Your task to perform on an android device: turn off wifi Image 0: 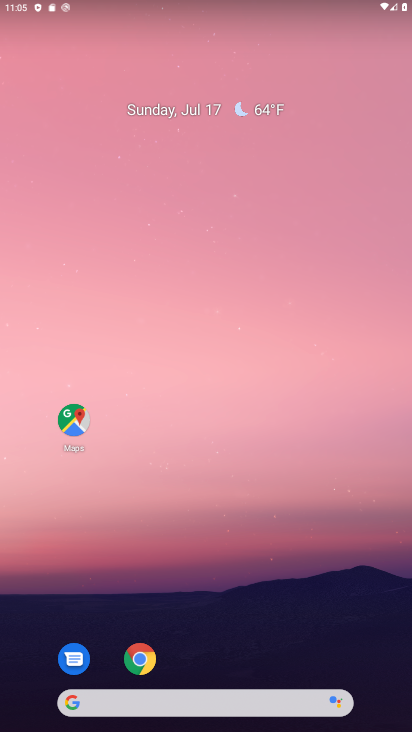
Step 0: drag from (316, 577) to (331, 58)
Your task to perform on an android device: turn off wifi Image 1: 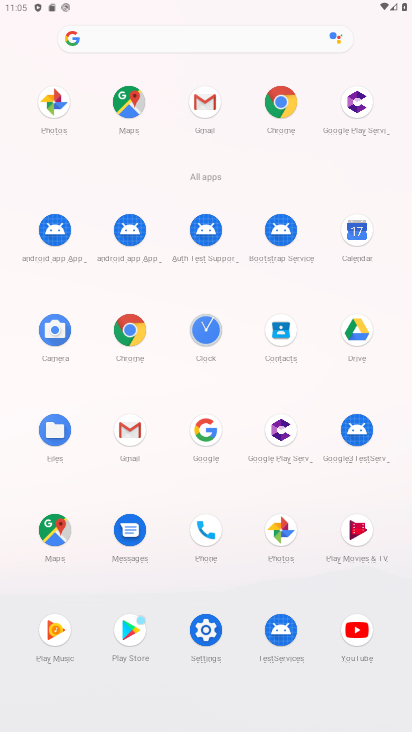
Step 1: click (202, 628)
Your task to perform on an android device: turn off wifi Image 2: 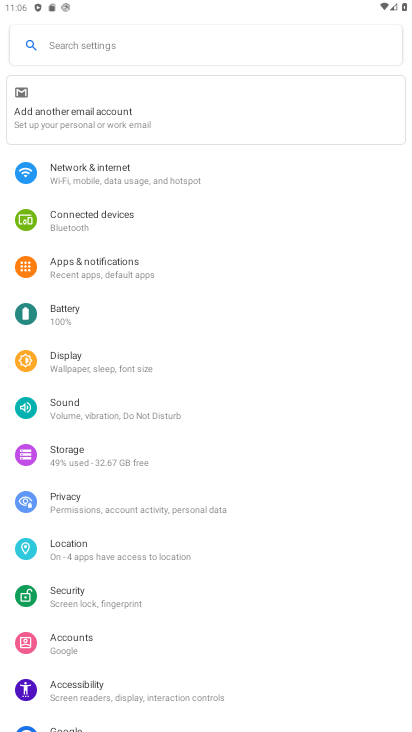
Step 2: drag from (331, 266) to (322, 407)
Your task to perform on an android device: turn off wifi Image 3: 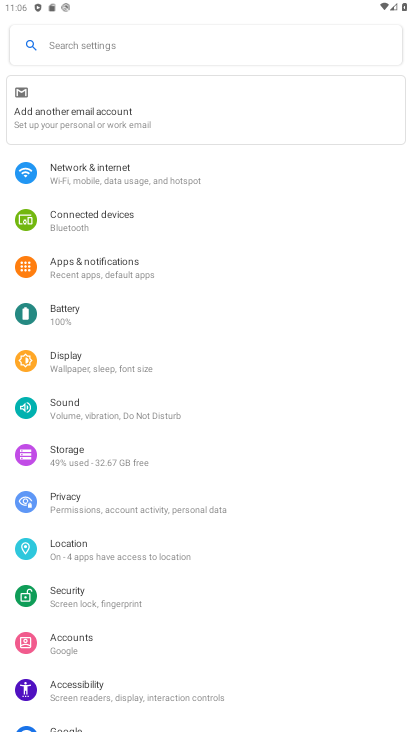
Step 3: drag from (311, 494) to (311, 387)
Your task to perform on an android device: turn off wifi Image 4: 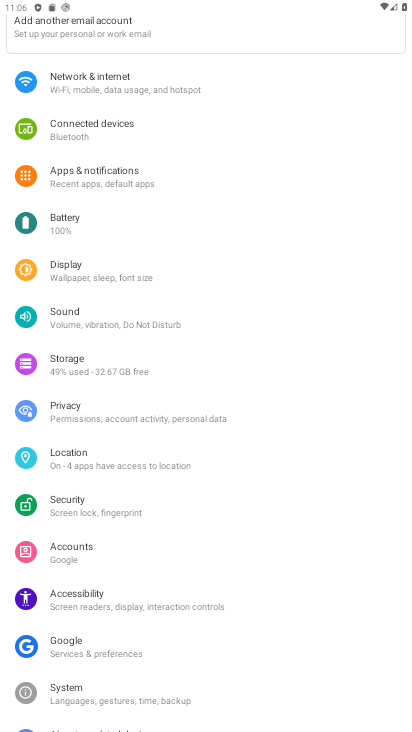
Step 4: drag from (323, 530) to (330, 401)
Your task to perform on an android device: turn off wifi Image 5: 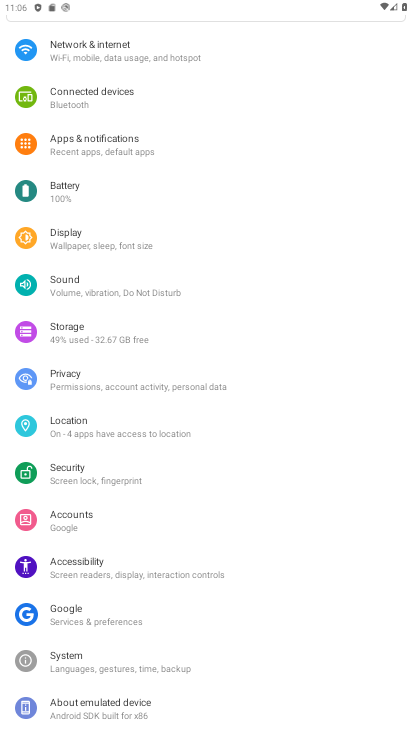
Step 5: drag from (330, 238) to (329, 380)
Your task to perform on an android device: turn off wifi Image 6: 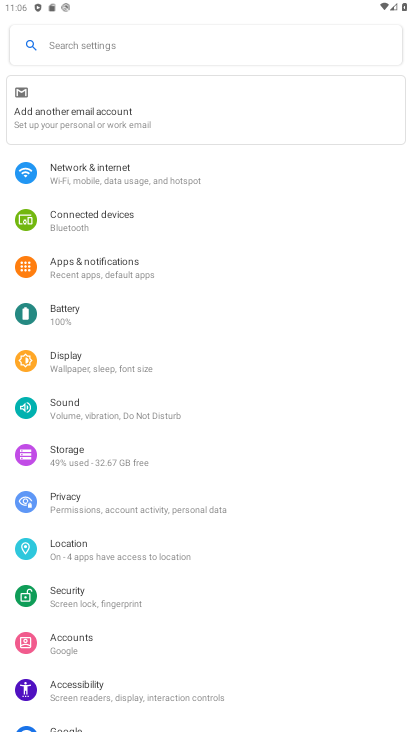
Step 6: drag from (318, 175) to (314, 335)
Your task to perform on an android device: turn off wifi Image 7: 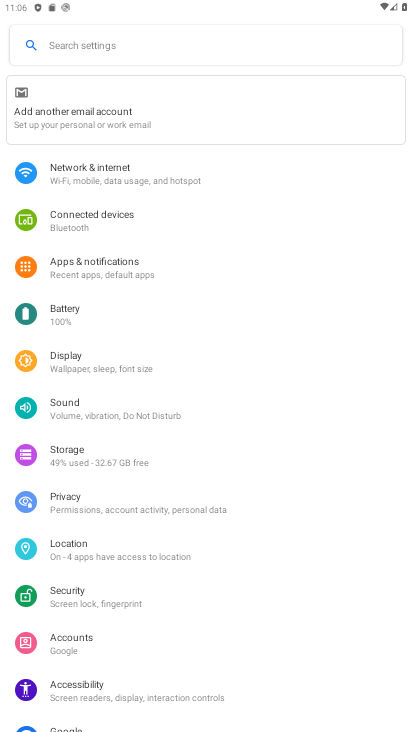
Step 7: click (202, 178)
Your task to perform on an android device: turn off wifi Image 8: 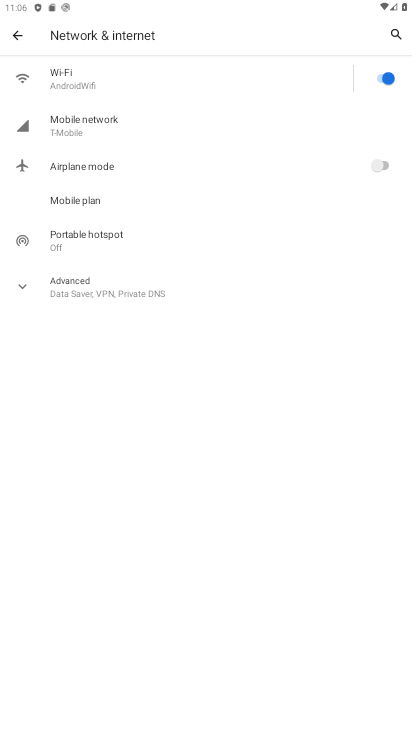
Step 8: click (378, 76)
Your task to perform on an android device: turn off wifi Image 9: 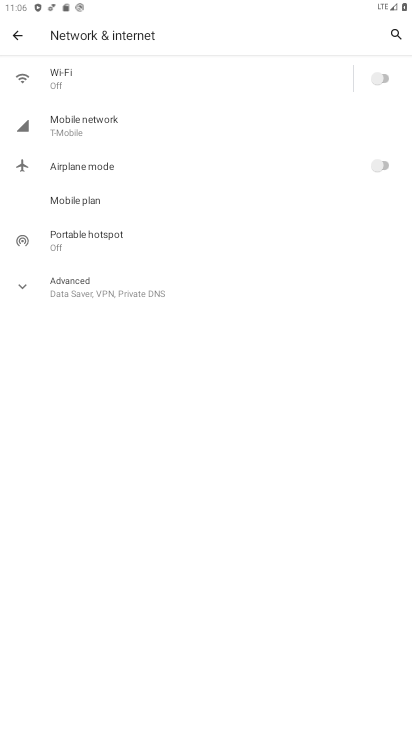
Step 9: task complete